Your task to perform on an android device: Open calendar and show me the second week of next month Image 0: 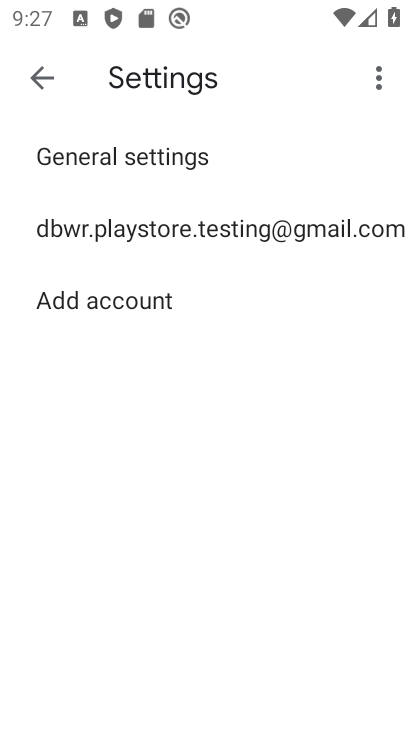
Step 0: press home button
Your task to perform on an android device: Open calendar and show me the second week of next month Image 1: 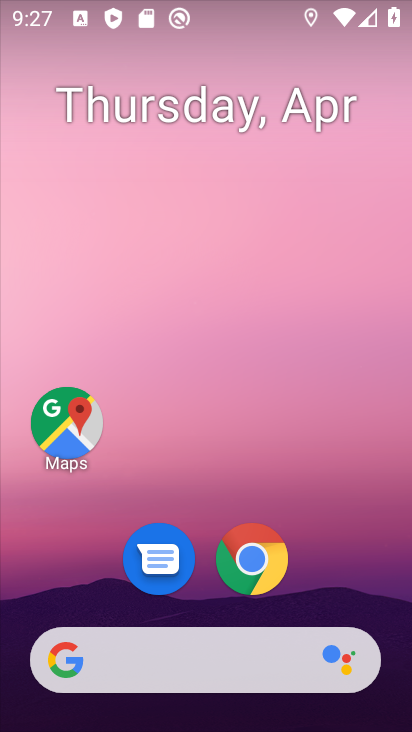
Step 1: drag from (240, 706) to (322, 94)
Your task to perform on an android device: Open calendar and show me the second week of next month Image 2: 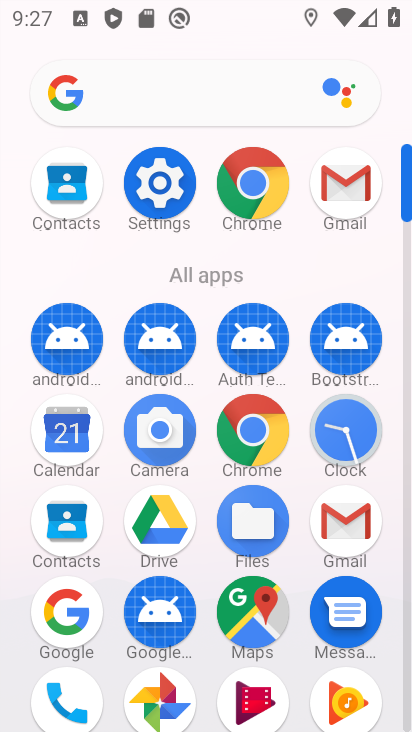
Step 2: click (69, 428)
Your task to perform on an android device: Open calendar and show me the second week of next month Image 3: 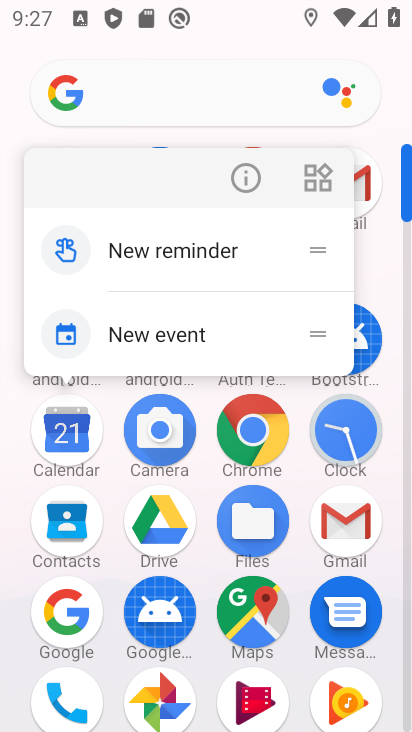
Step 3: click (69, 428)
Your task to perform on an android device: Open calendar and show me the second week of next month Image 4: 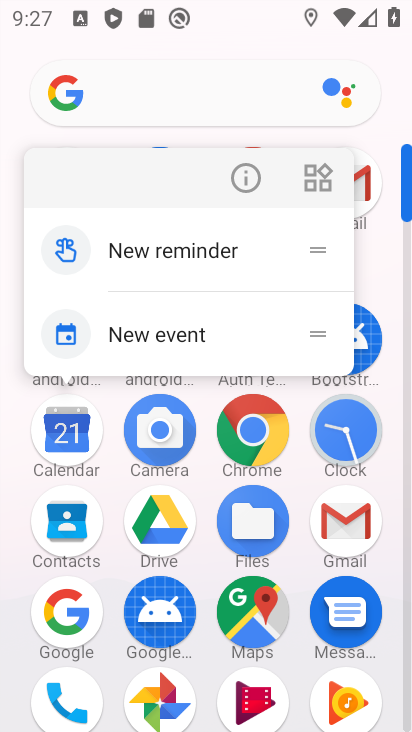
Step 4: click (69, 428)
Your task to perform on an android device: Open calendar and show me the second week of next month Image 5: 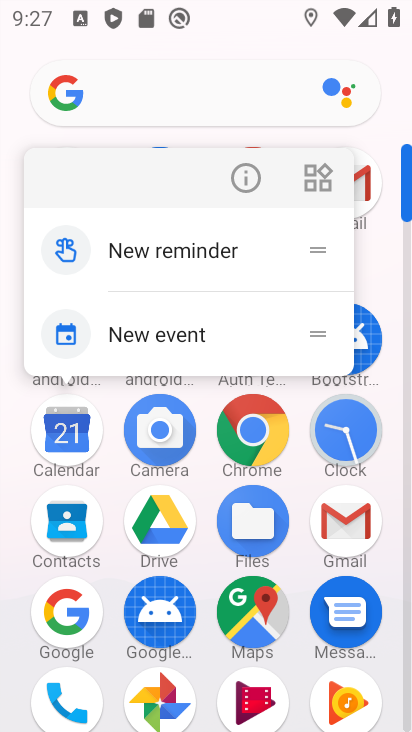
Step 5: click (69, 428)
Your task to perform on an android device: Open calendar and show me the second week of next month Image 6: 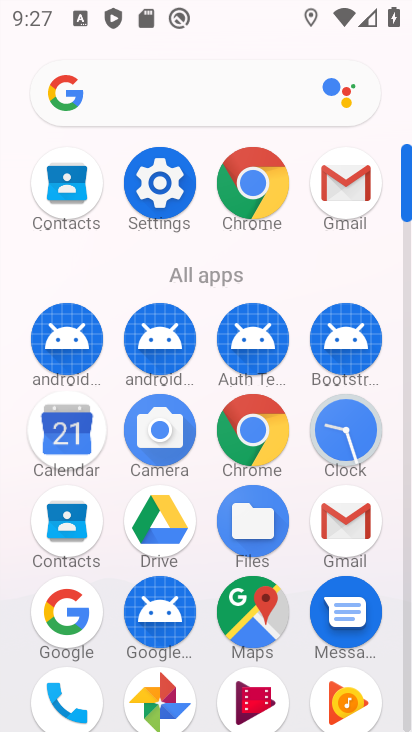
Step 6: click (69, 428)
Your task to perform on an android device: Open calendar and show me the second week of next month Image 7: 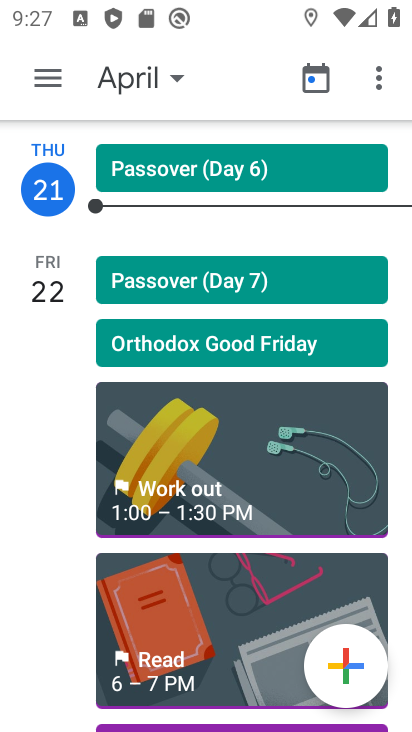
Step 7: click (145, 77)
Your task to perform on an android device: Open calendar and show me the second week of next month Image 8: 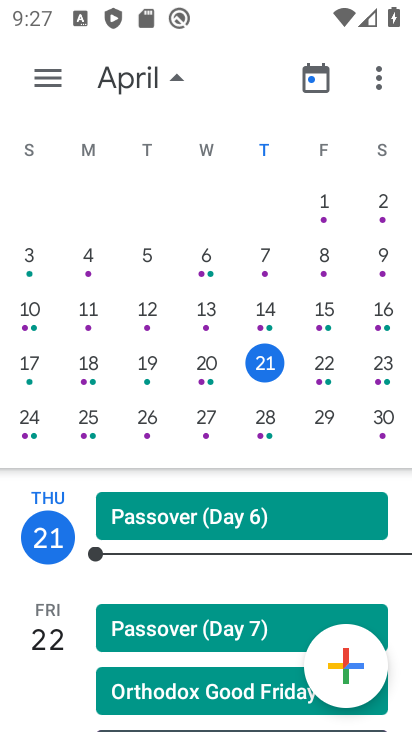
Step 8: drag from (348, 292) to (29, 226)
Your task to perform on an android device: Open calendar and show me the second week of next month Image 9: 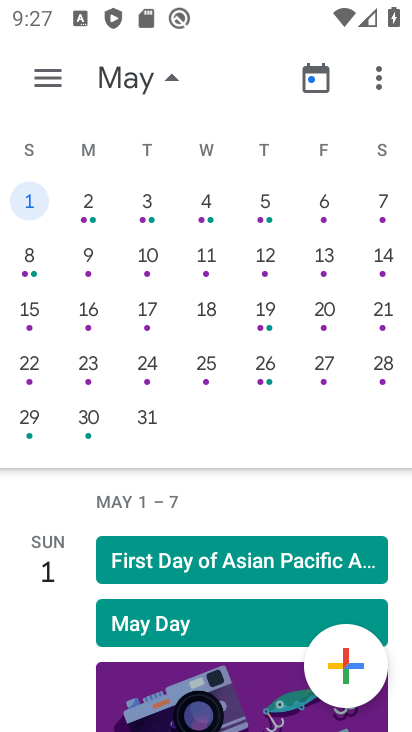
Step 9: click (29, 255)
Your task to perform on an android device: Open calendar and show me the second week of next month Image 10: 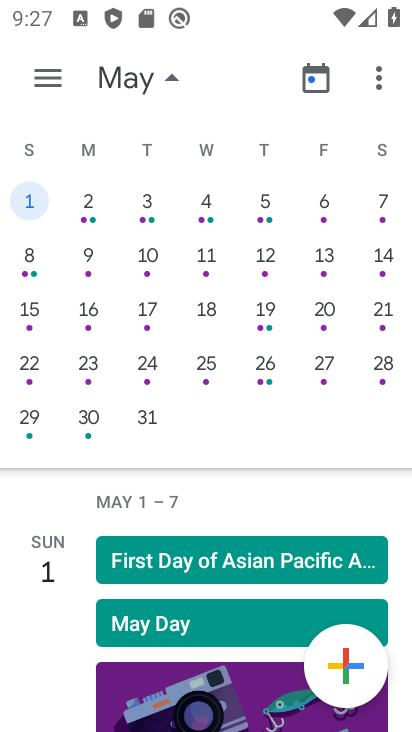
Step 10: click (29, 255)
Your task to perform on an android device: Open calendar and show me the second week of next month Image 11: 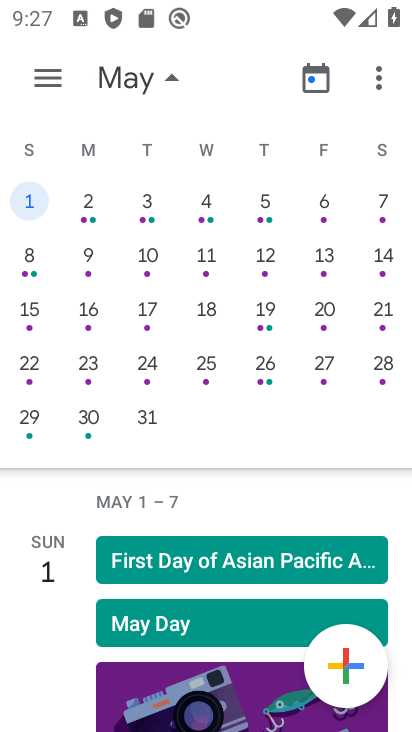
Step 11: click (32, 255)
Your task to perform on an android device: Open calendar and show me the second week of next month Image 12: 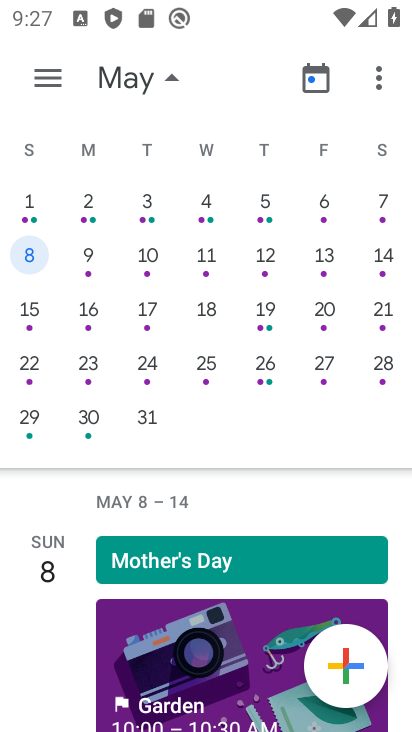
Step 12: task complete